Your task to perform on an android device: toggle data saver in the chrome app Image 0: 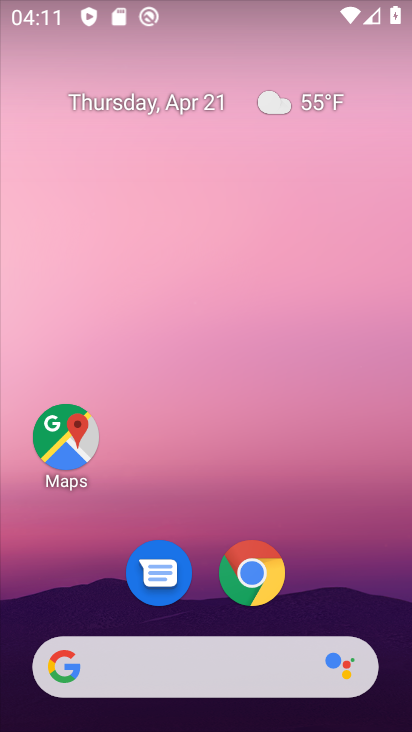
Step 0: click (258, 564)
Your task to perform on an android device: toggle data saver in the chrome app Image 1: 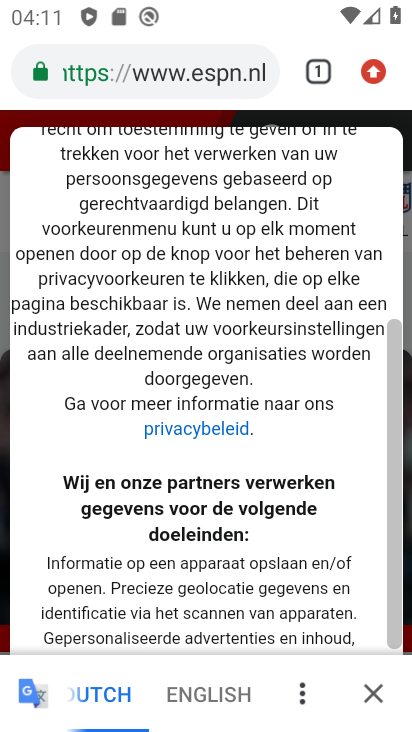
Step 1: press home button
Your task to perform on an android device: toggle data saver in the chrome app Image 2: 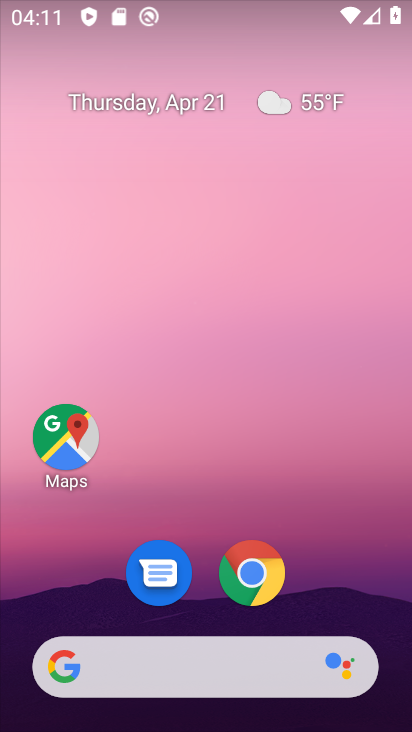
Step 2: click (241, 578)
Your task to perform on an android device: toggle data saver in the chrome app Image 3: 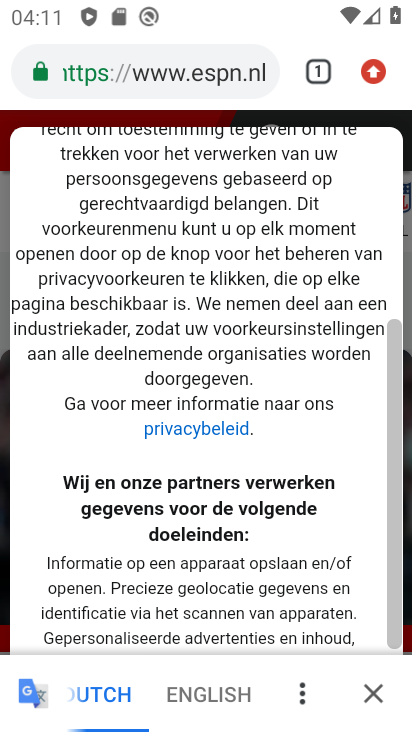
Step 3: press back button
Your task to perform on an android device: toggle data saver in the chrome app Image 4: 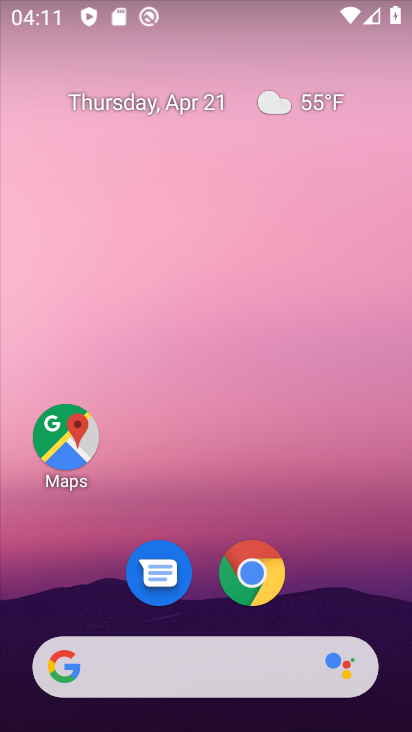
Step 4: click (243, 575)
Your task to perform on an android device: toggle data saver in the chrome app Image 5: 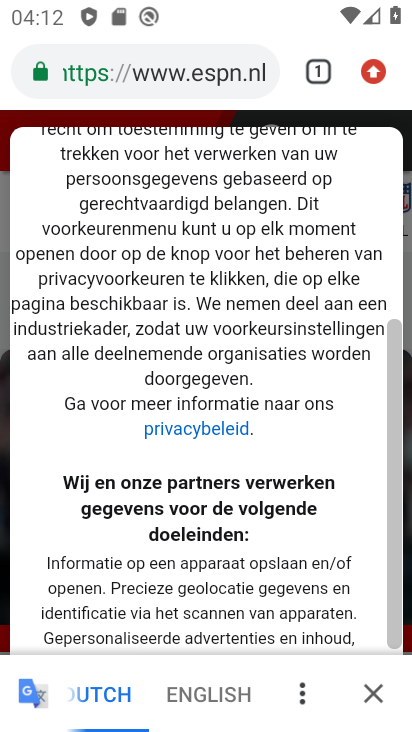
Step 5: drag from (365, 74) to (162, 560)
Your task to perform on an android device: toggle data saver in the chrome app Image 6: 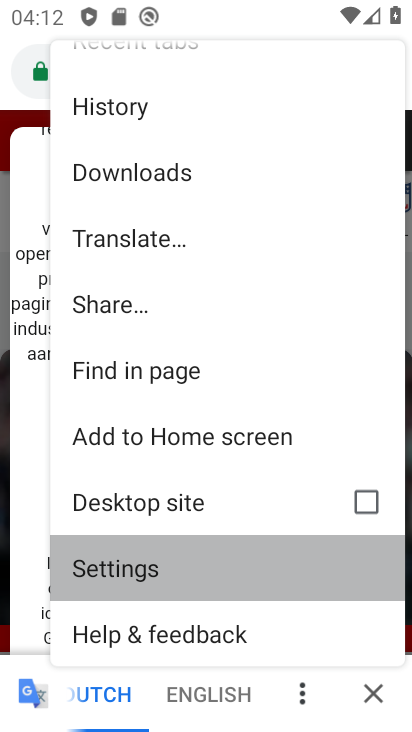
Step 6: click (162, 560)
Your task to perform on an android device: toggle data saver in the chrome app Image 7: 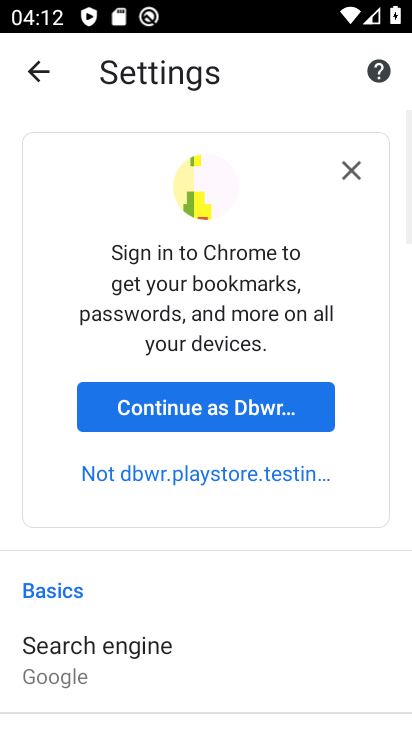
Step 7: drag from (169, 701) to (185, 242)
Your task to perform on an android device: toggle data saver in the chrome app Image 8: 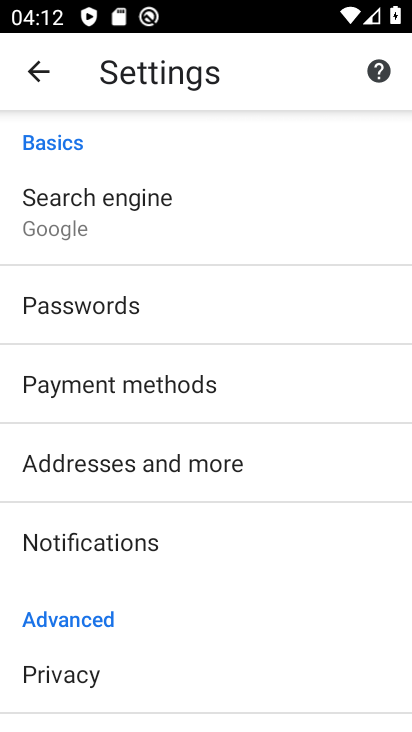
Step 8: drag from (124, 696) to (175, 298)
Your task to perform on an android device: toggle data saver in the chrome app Image 9: 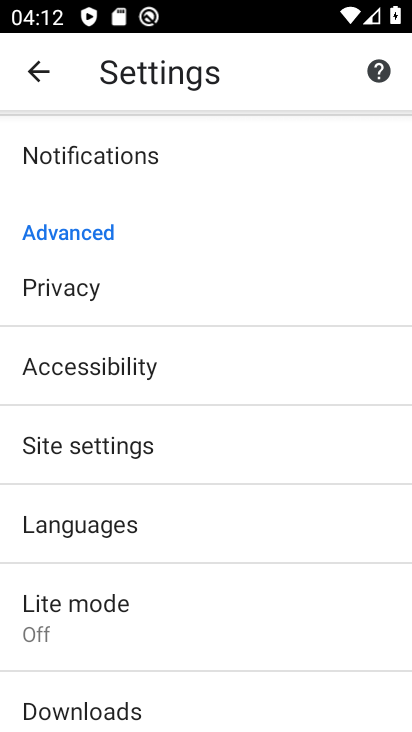
Step 9: click (56, 608)
Your task to perform on an android device: toggle data saver in the chrome app Image 10: 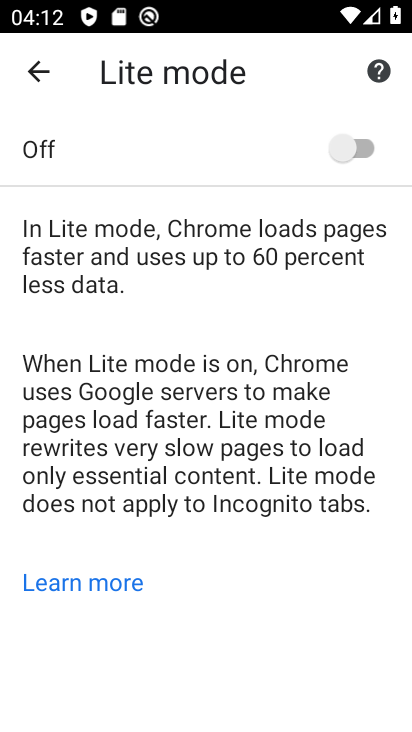
Step 10: click (367, 147)
Your task to perform on an android device: toggle data saver in the chrome app Image 11: 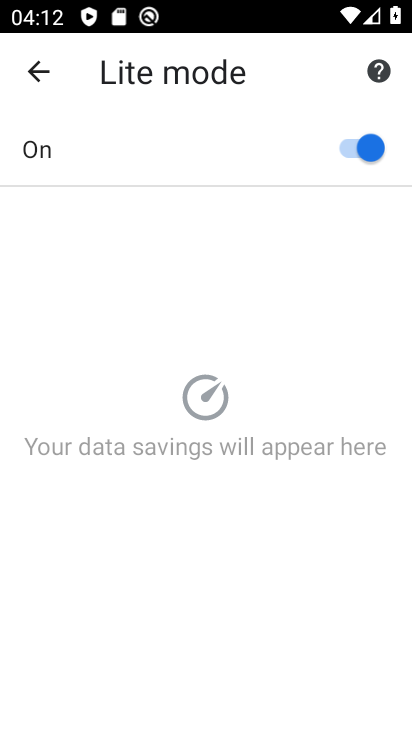
Step 11: task complete